Your task to perform on an android device: Open settings on Google Maps Image 0: 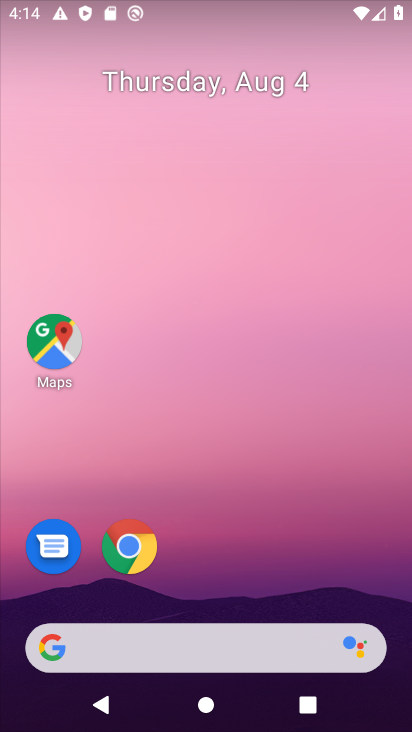
Step 0: click (48, 352)
Your task to perform on an android device: Open settings on Google Maps Image 1: 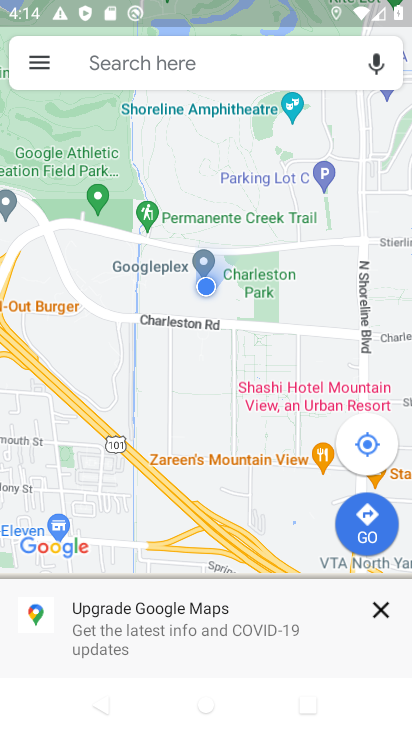
Step 1: click (36, 59)
Your task to perform on an android device: Open settings on Google Maps Image 2: 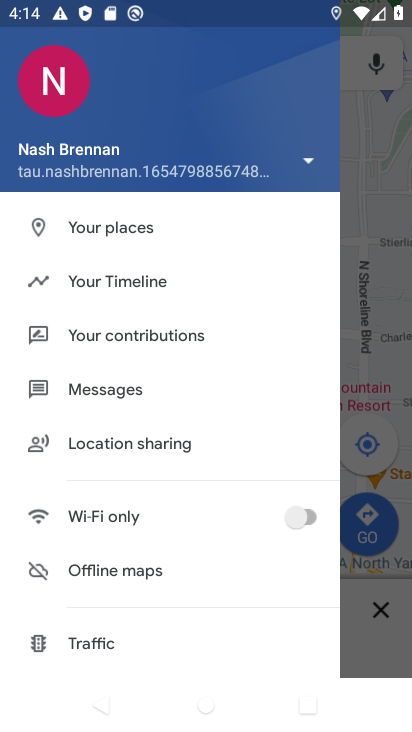
Step 2: drag from (124, 553) to (136, 153)
Your task to perform on an android device: Open settings on Google Maps Image 3: 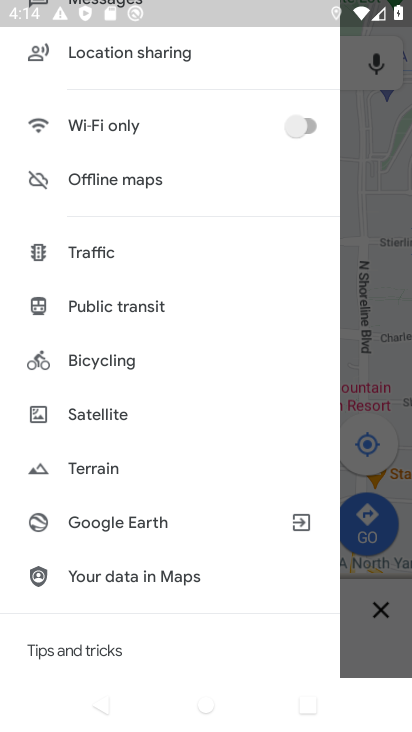
Step 3: drag from (115, 526) to (194, 16)
Your task to perform on an android device: Open settings on Google Maps Image 4: 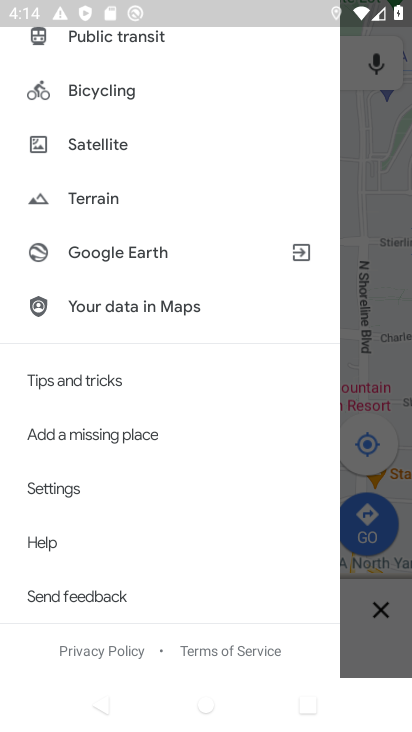
Step 4: click (56, 487)
Your task to perform on an android device: Open settings on Google Maps Image 5: 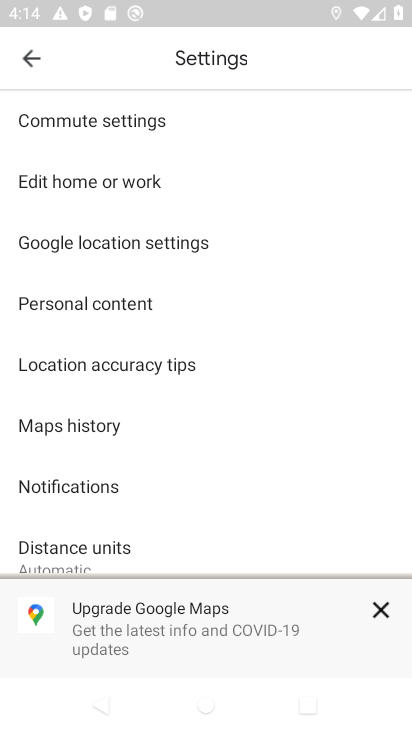
Step 5: task complete